Your task to perform on an android device: Open Google Maps Image 0: 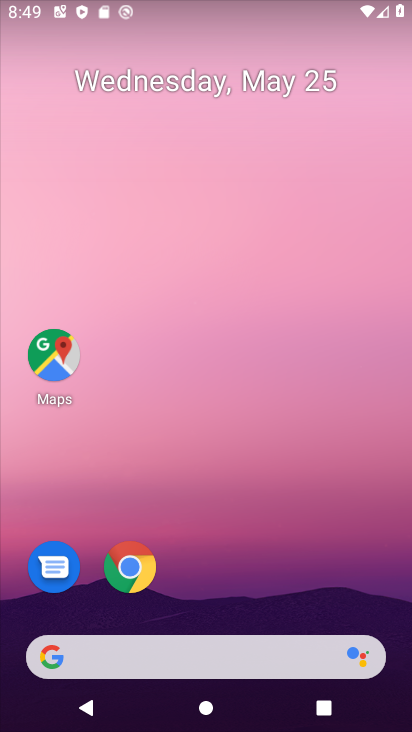
Step 0: click (55, 388)
Your task to perform on an android device: Open Google Maps Image 1: 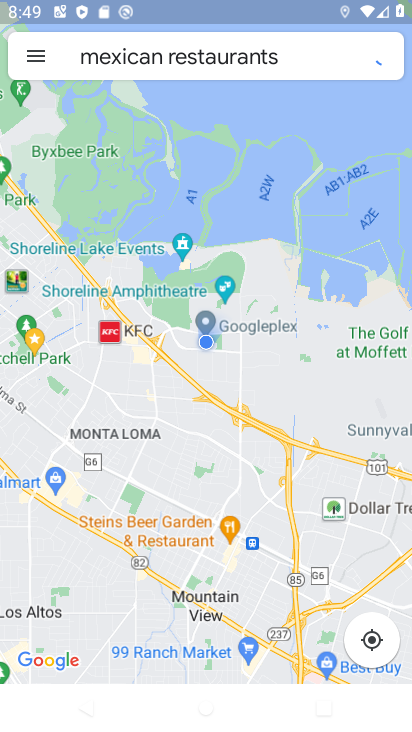
Step 1: task complete